Your task to perform on an android device: check google app version Image 0: 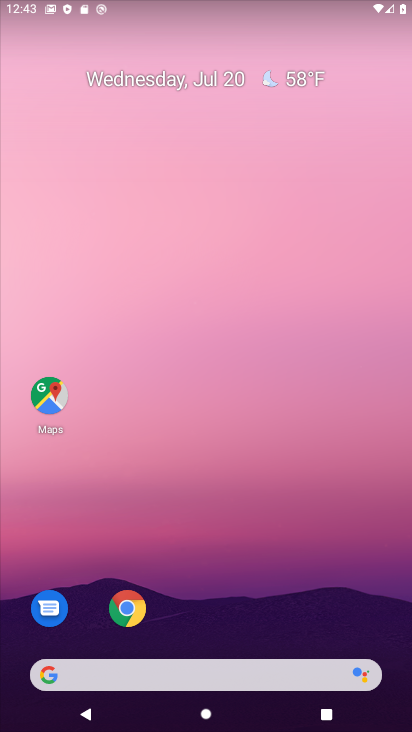
Step 0: drag from (249, 699) to (248, 299)
Your task to perform on an android device: check google app version Image 1: 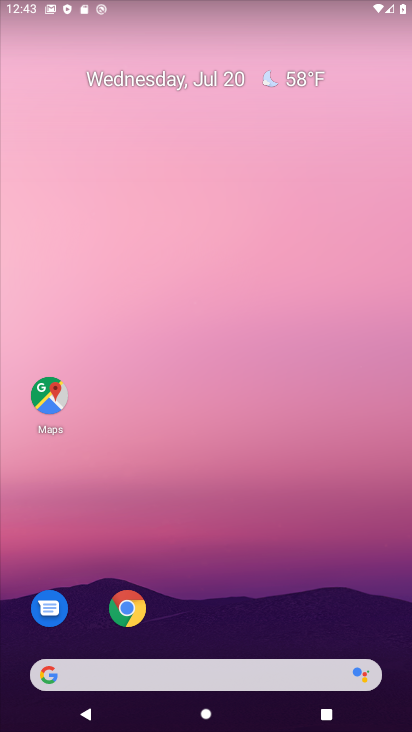
Step 1: drag from (266, 714) to (253, 272)
Your task to perform on an android device: check google app version Image 2: 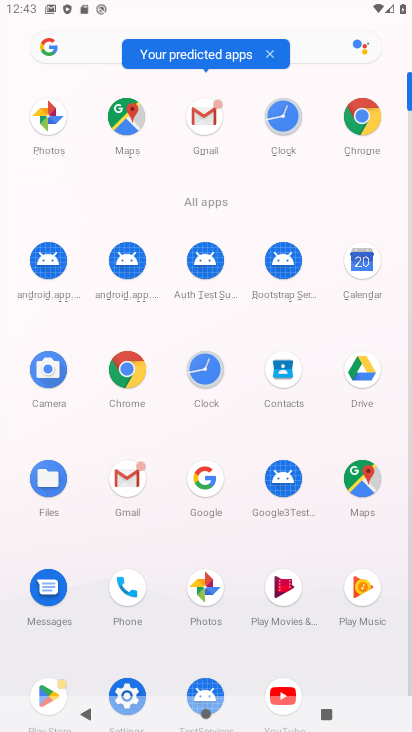
Step 2: click (207, 481)
Your task to perform on an android device: check google app version Image 3: 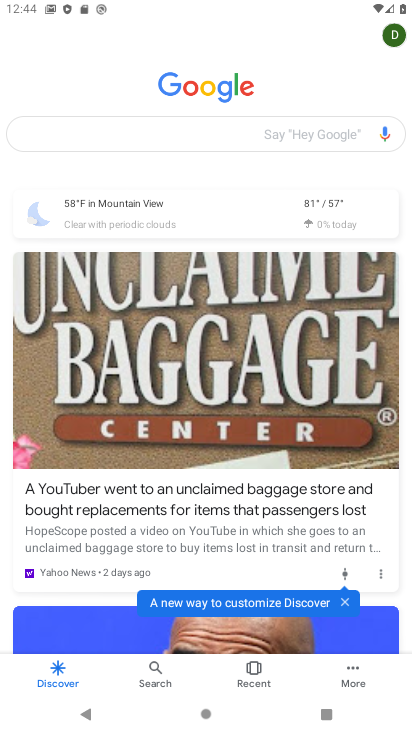
Step 3: click (354, 672)
Your task to perform on an android device: check google app version Image 4: 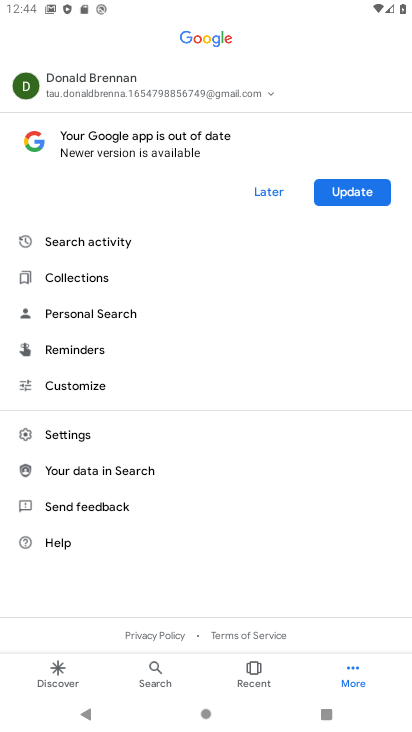
Step 4: click (62, 429)
Your task to perform on an android device: check google app version Image 5: 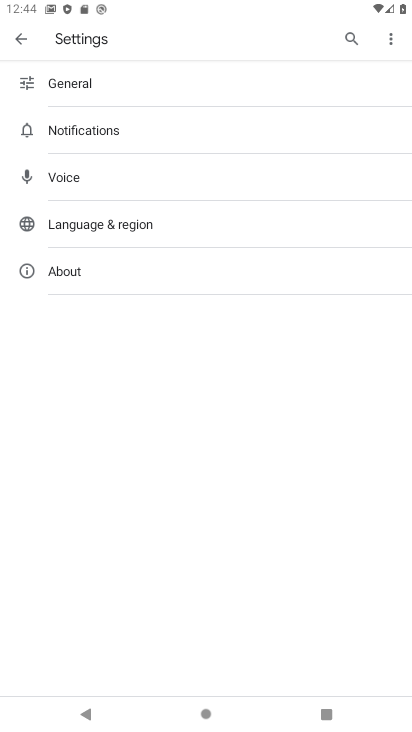
Step 5: click (66, 271)
Your task to perform on an android device: check google app version Image 6: 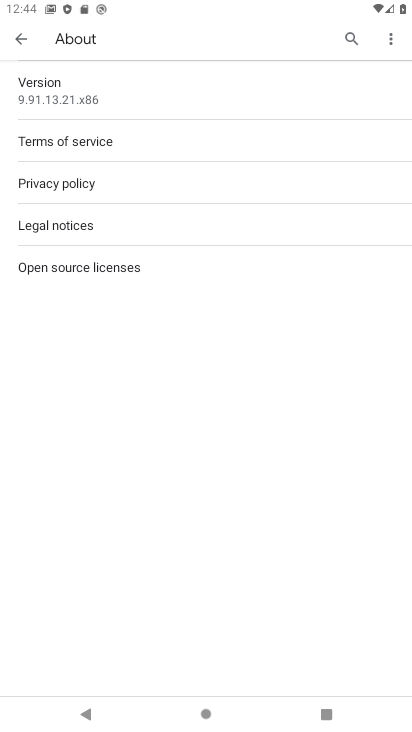
Step 6: task complete